Your task to perform on an android device: Open maps Image 0: 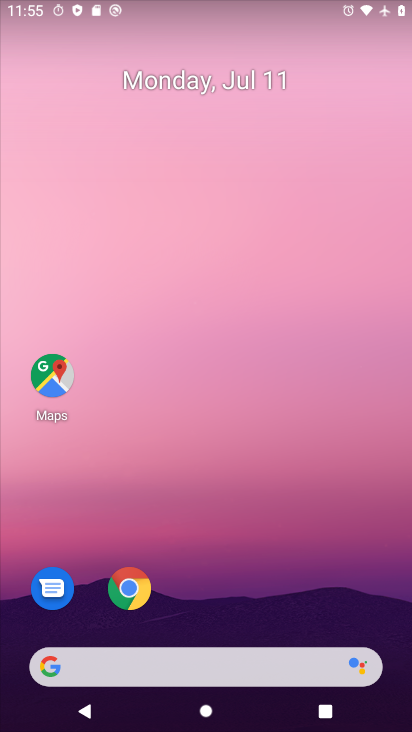
Step 0: click (51, 386)
Your task to perform on an android device: Open maps Image 1: 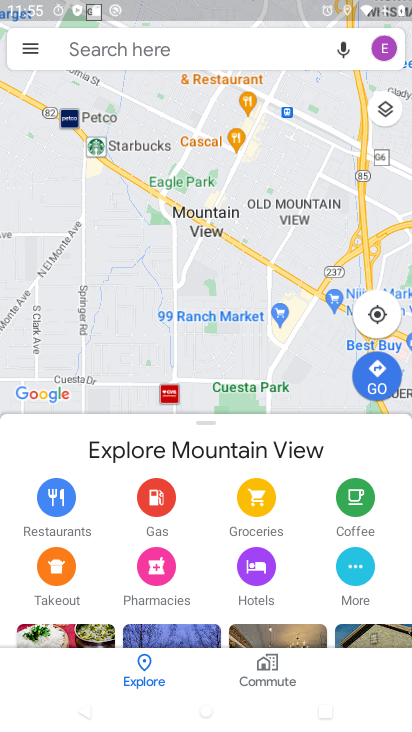
Step 1: task complete